Your task to perform on an android device: allow notifications from all sites in the chrome app Image 0: 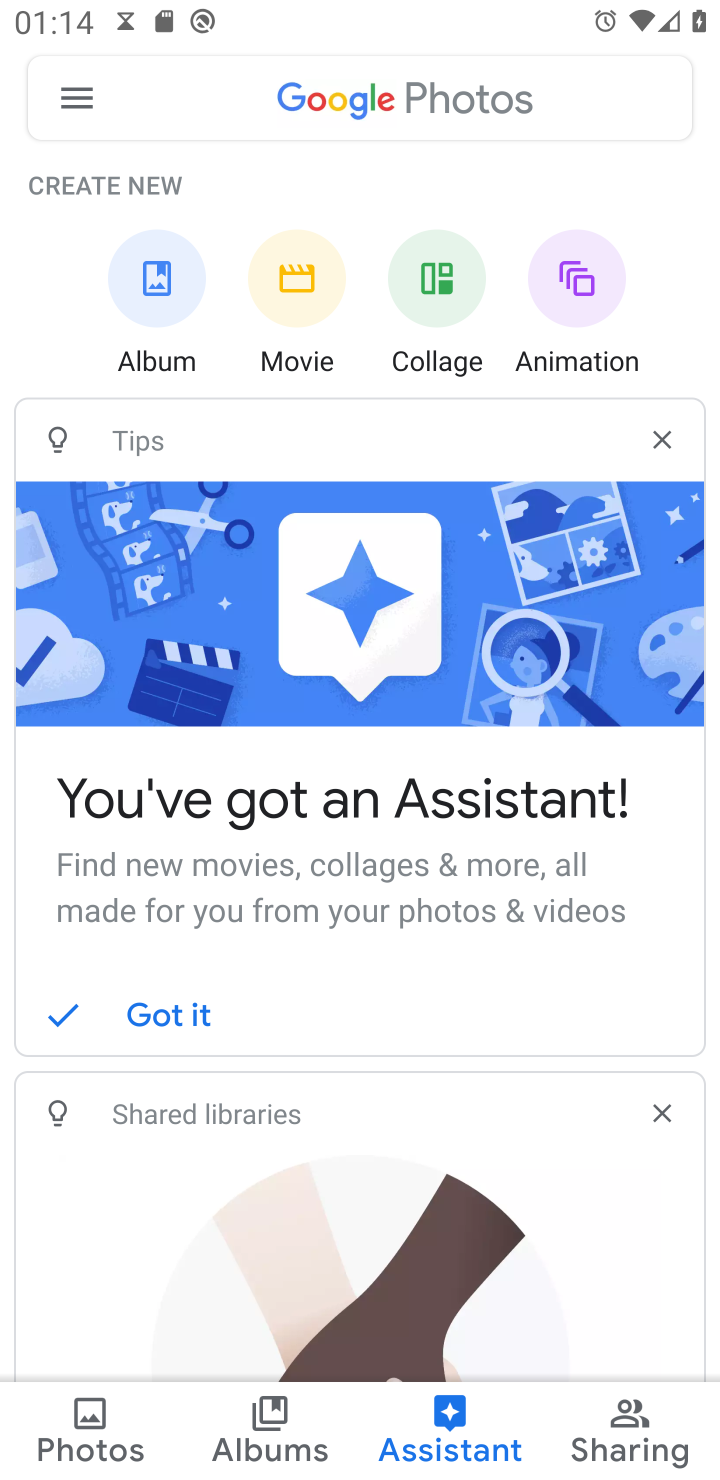
Step 0: drag from (398, 1274) to (384, 586)
Your task to perform on an android device: allow notifications from all sites in the chrome app Image 1: 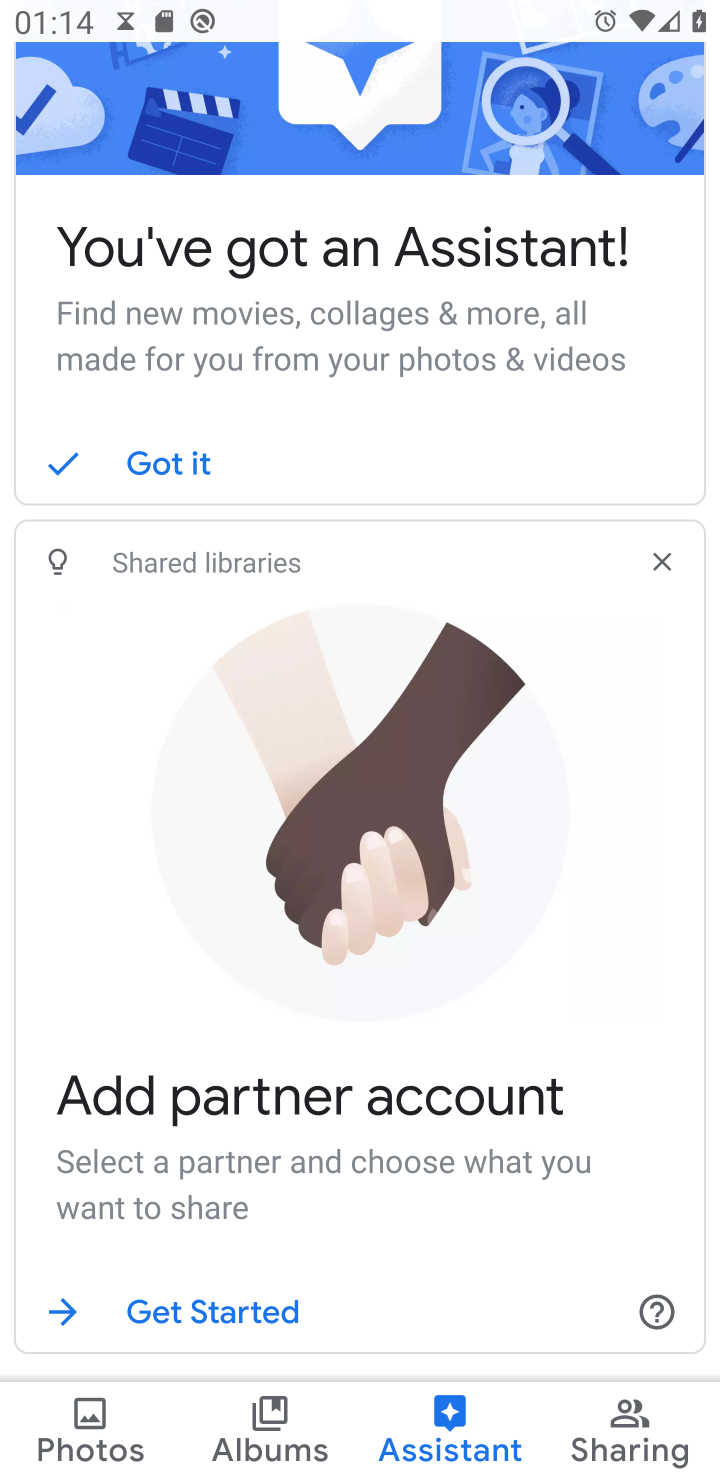
Step 1: press home button
Your task to perform on an android device: allow notifications from all sites in the chrome app Image 2: 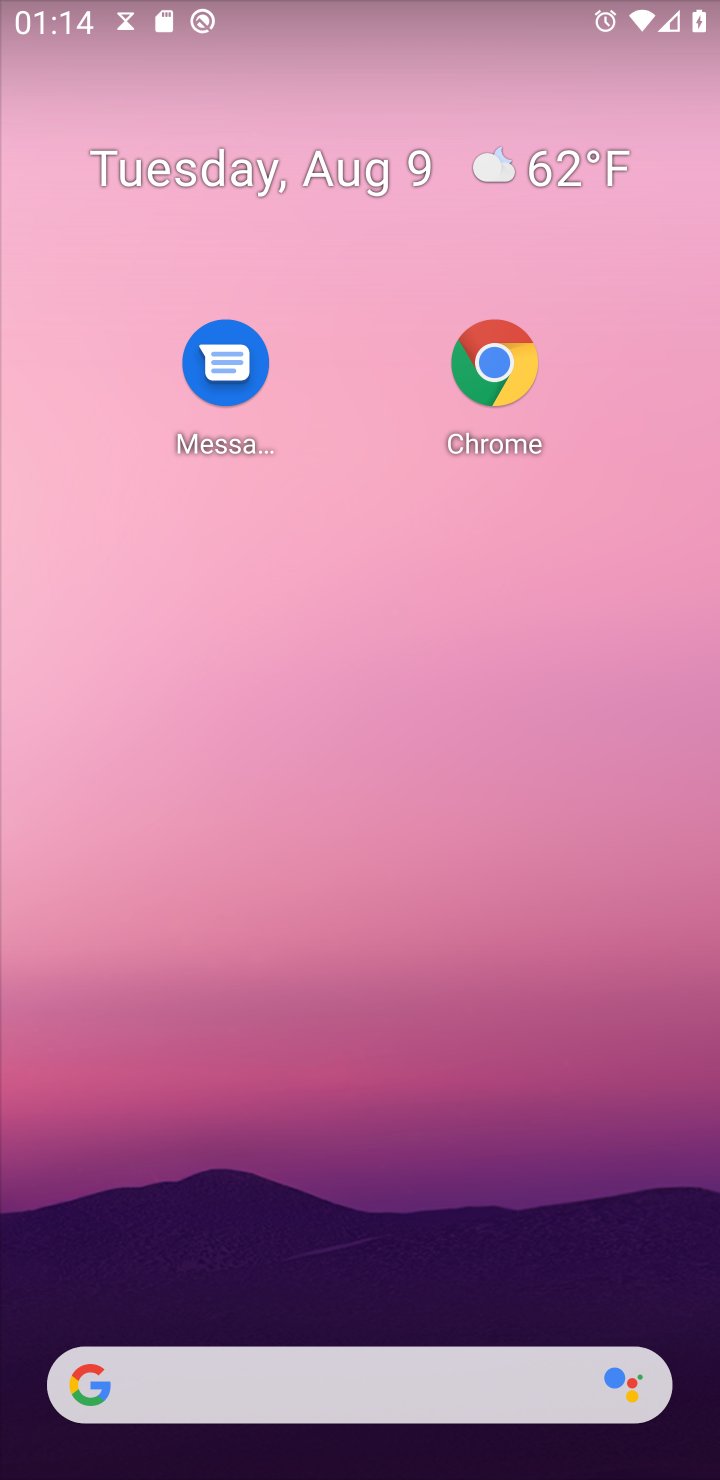
Step 2: drag from (188, 1282) to (372, 346)
Your task to perform on an android device: allow notifications from all sites in the chrome app Image 3: 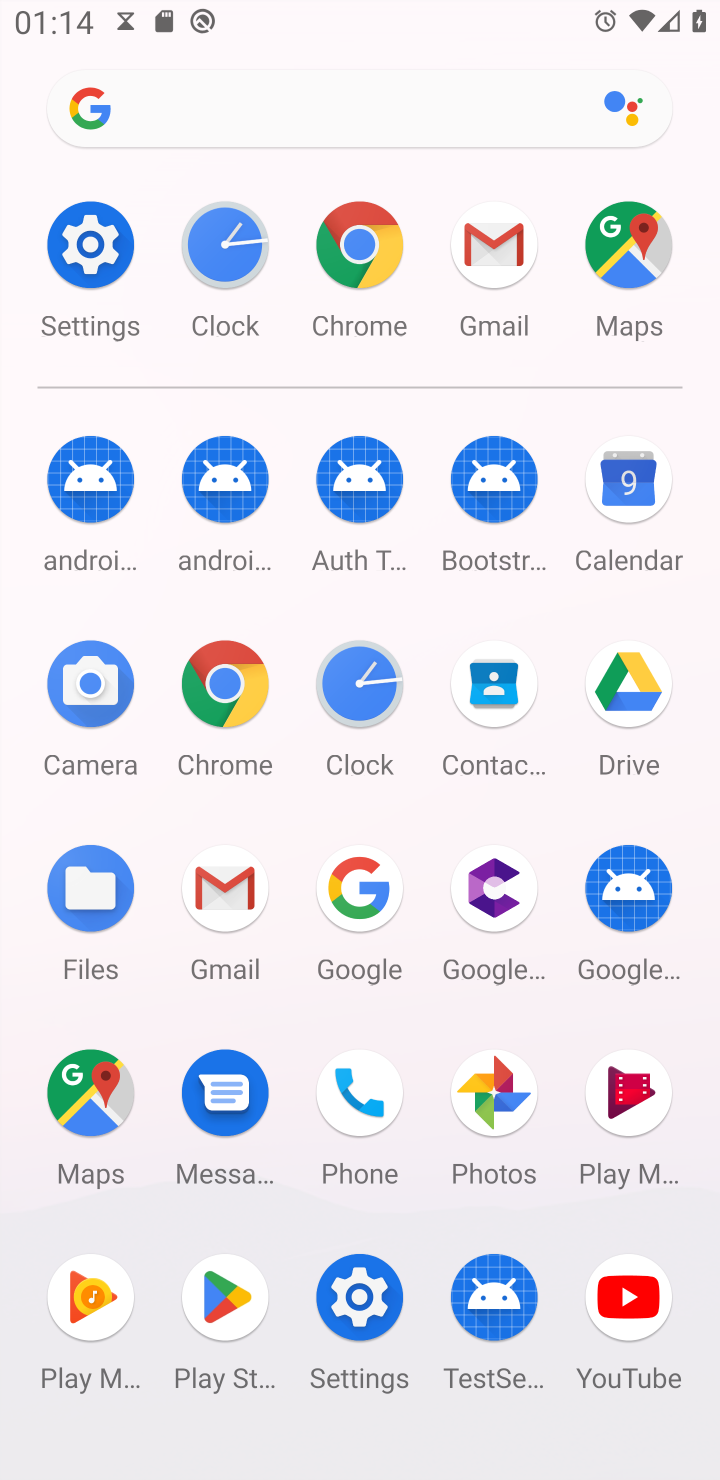
Step 3: click (238, 679)
Your task to perform on an android device: allow notifications from all sites in the chrome app Image 4: 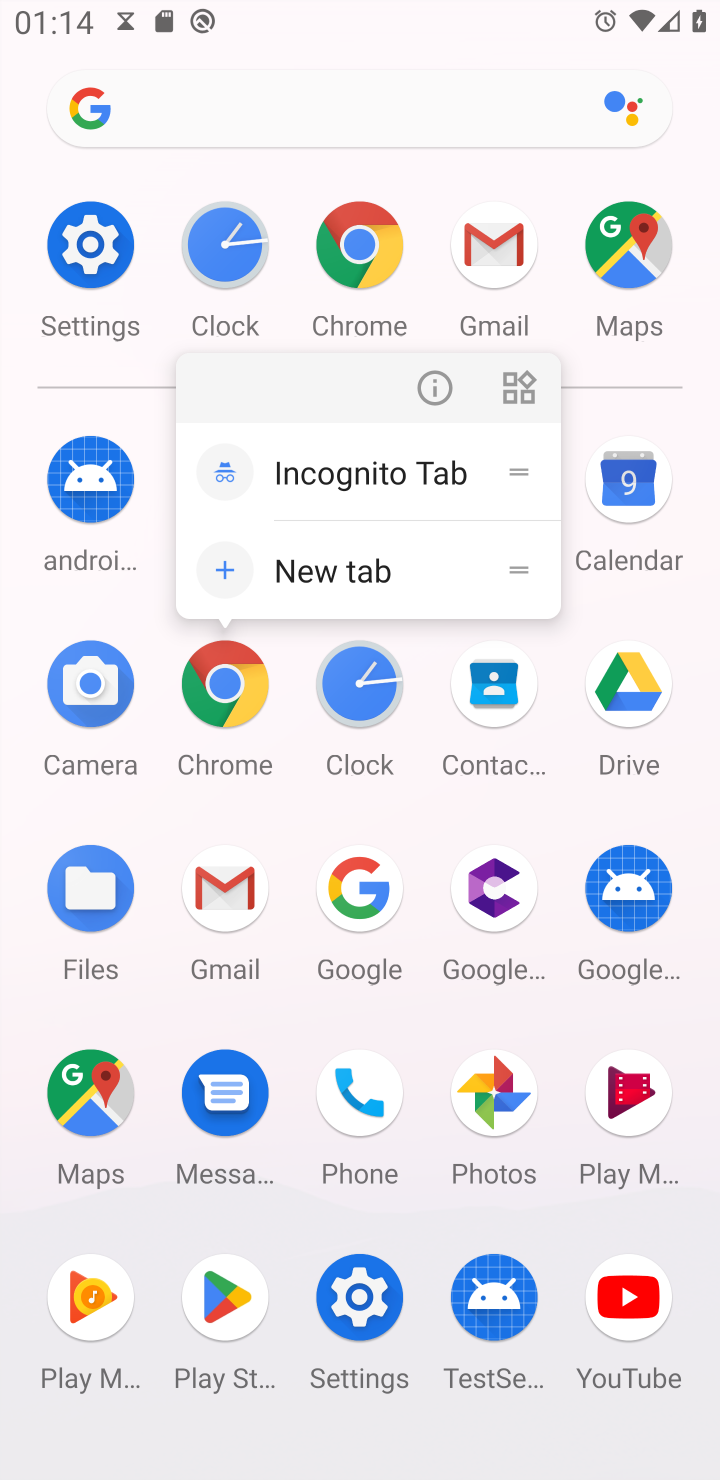
Step 4: click (228, 633)
Your task to perform on an android device: allow notifications from all sites in the chrome app Image 5: 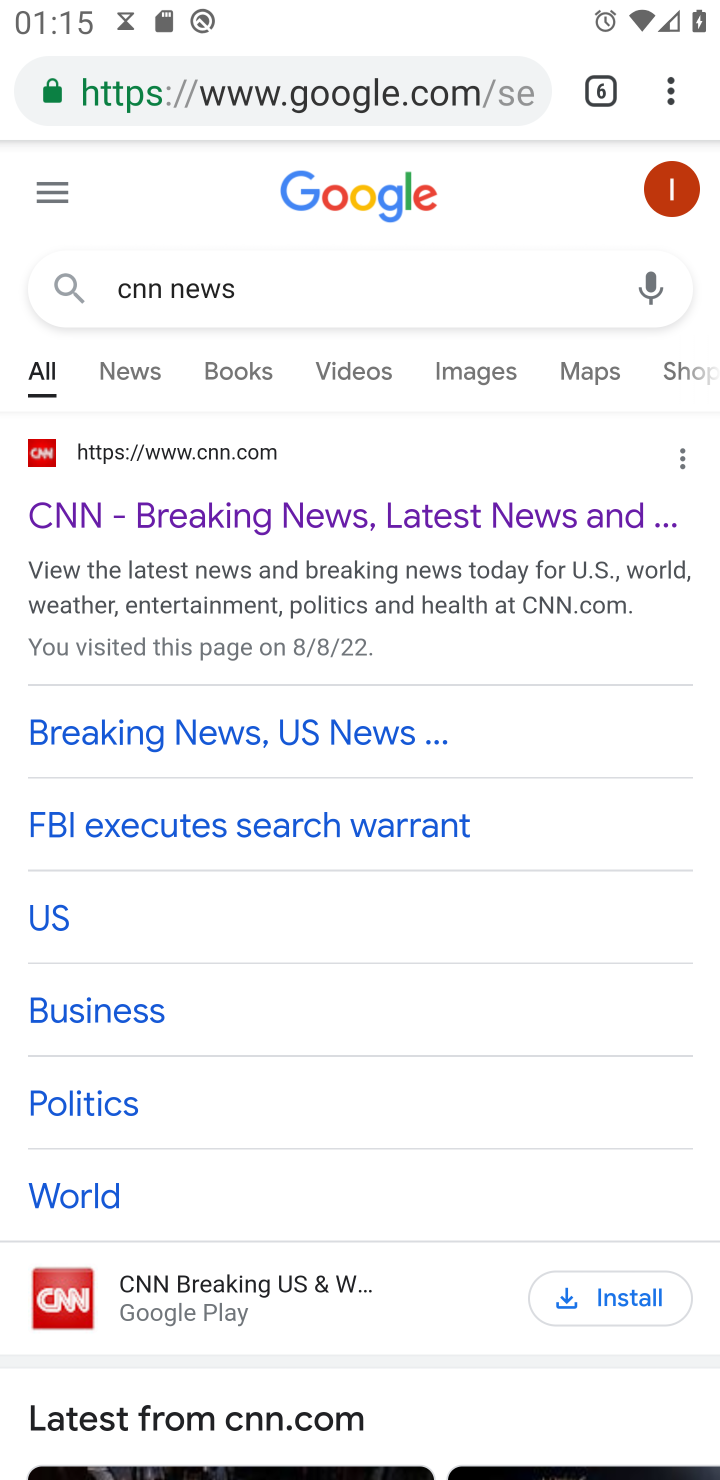
Step 5: click (674, 100)
Your task to perform on an android device: allow notifications from all sites in the chrome app Image 6: 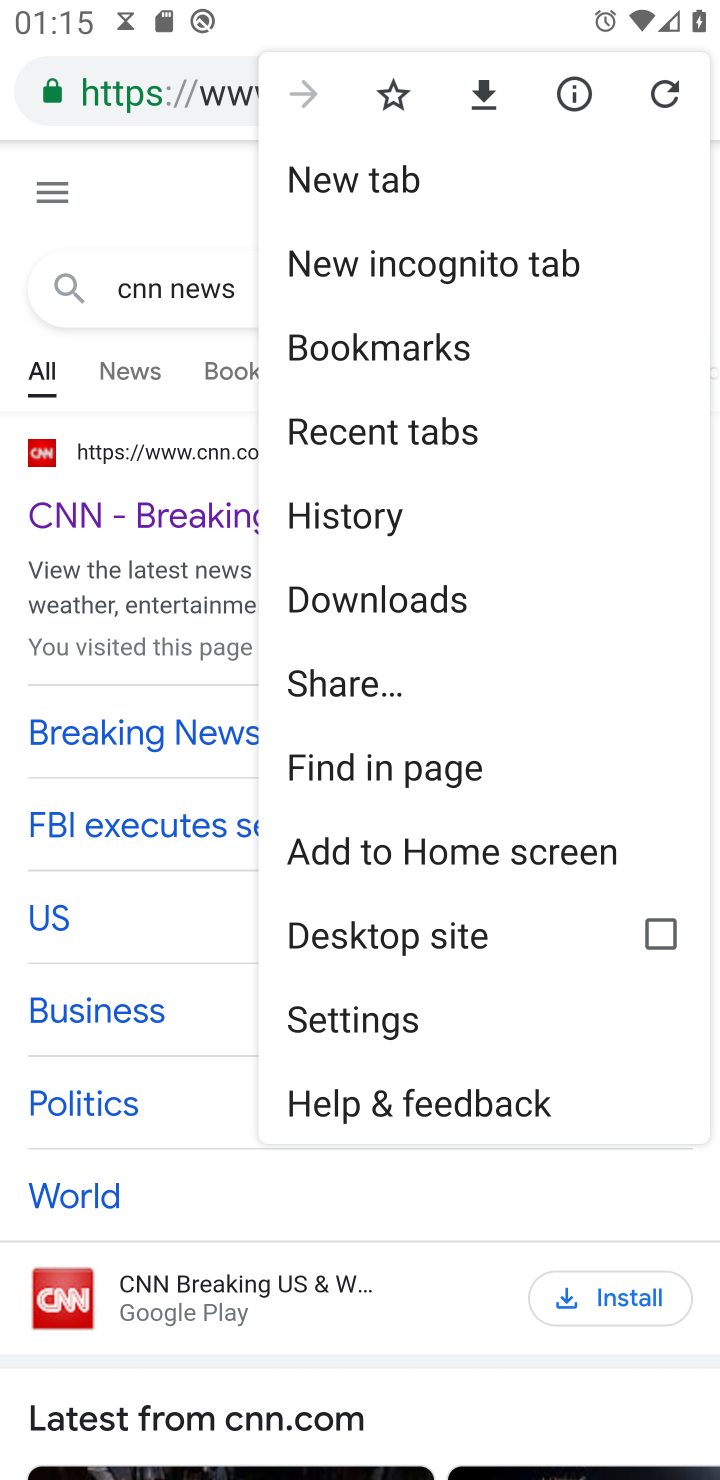
Step 6: click (377, 999)
Your task to perform on an android device: allow notifications from all sites in the chrome app Image 7: 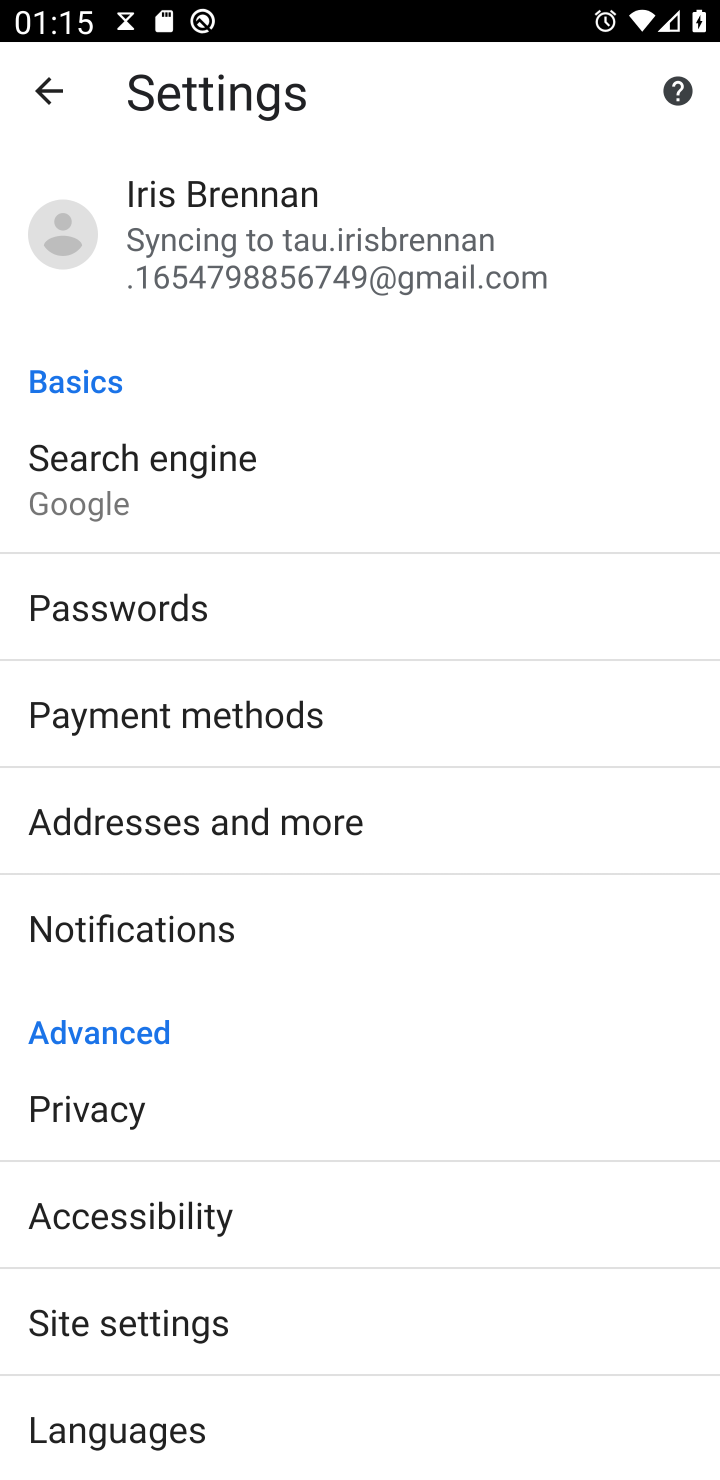
Step 7: drag from (206, 1251) to (358, 512)
Your task to perform on an android device: allow notifications from all sites in the chrome app Image 8: 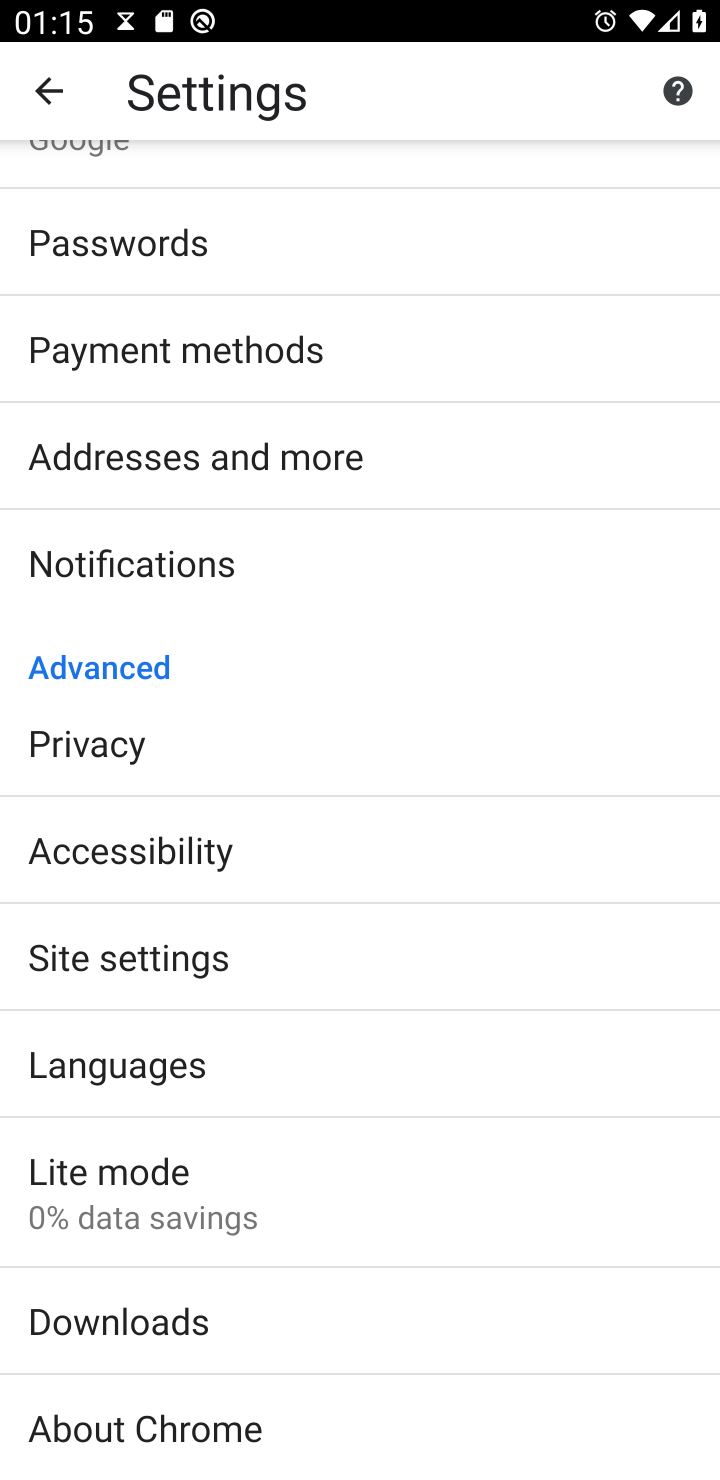
Step 8: click (227, 930)
Your task to perform on an android device: allow notifications from all sites in the chrome app Image 9: 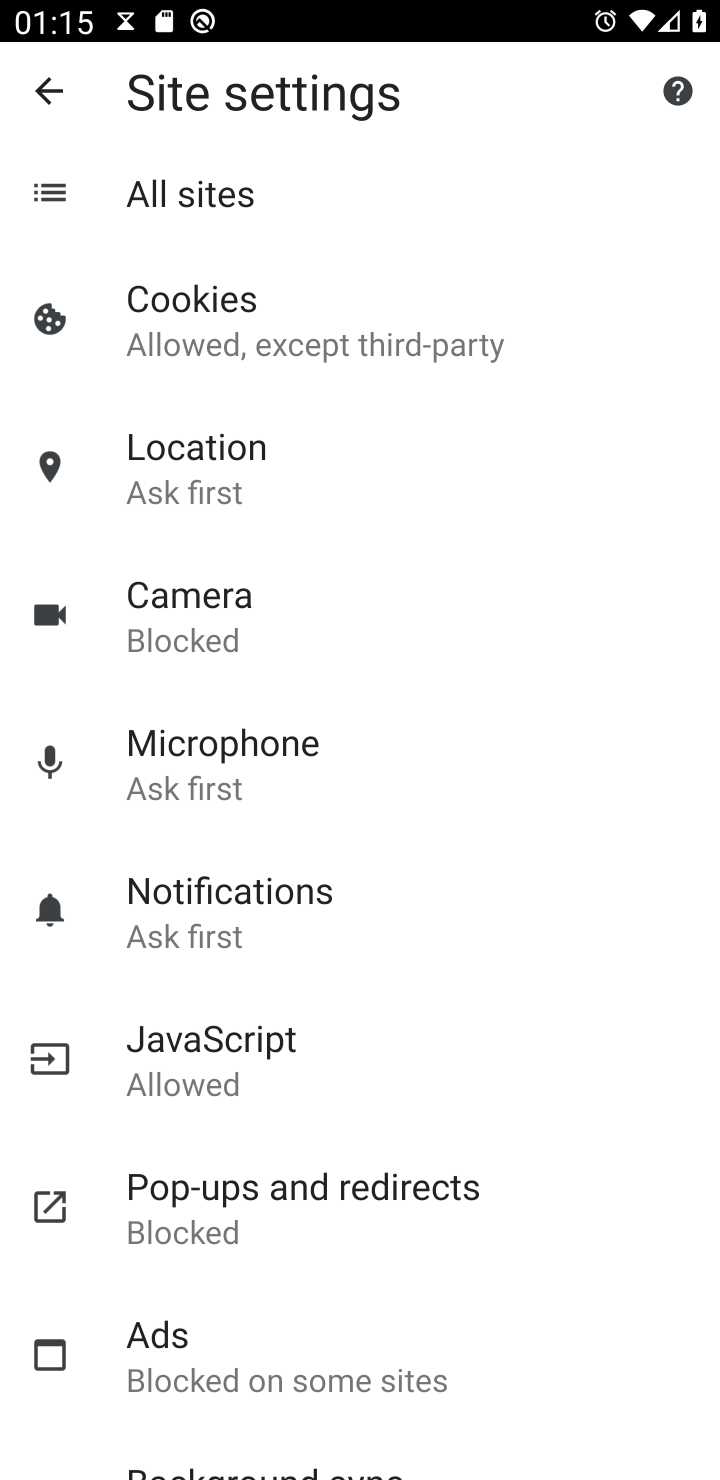
Step 9: click (204, 336)
Your task to perform on an android device: allow notifications from all sites in the chrome app Image 10: 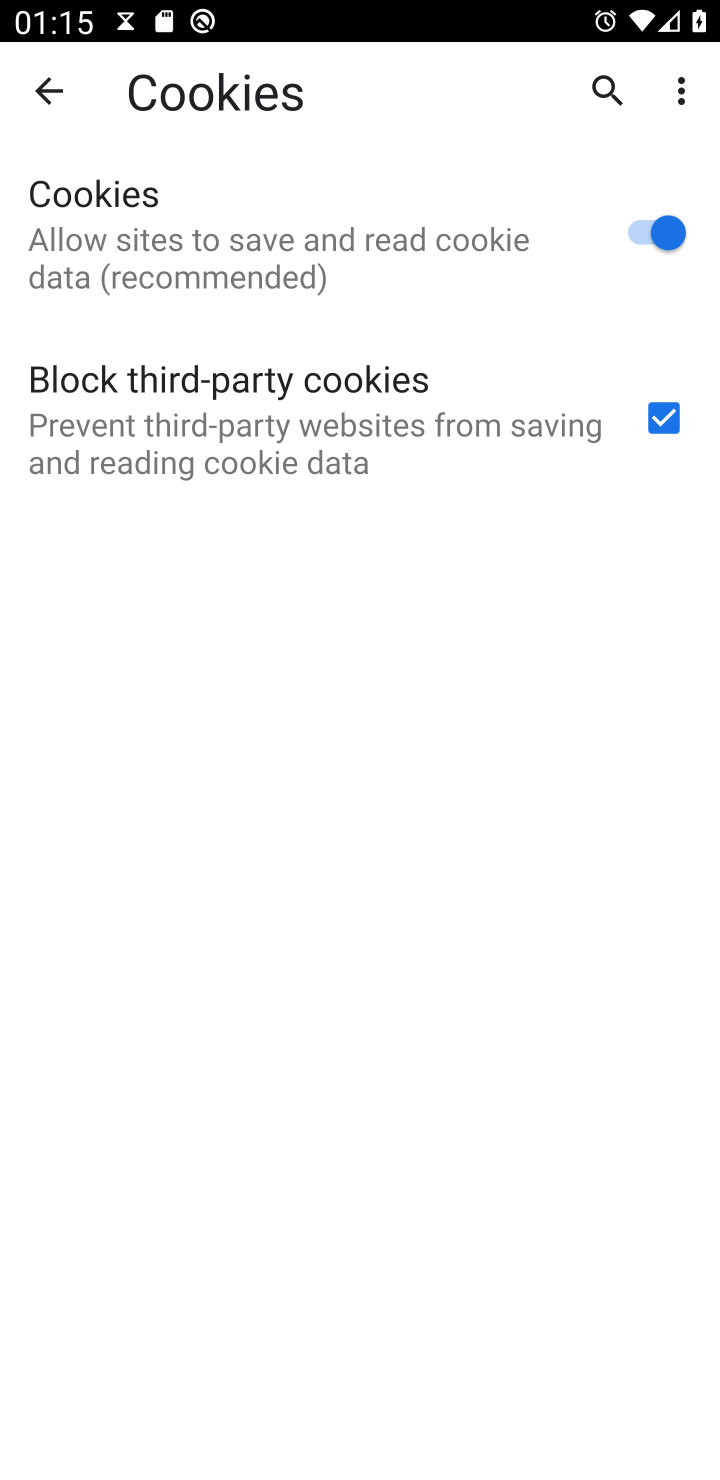
Step 10: click (53, 86)
Your task to perform on an android device: allow notifications from all sites in the chrome app Image 11: 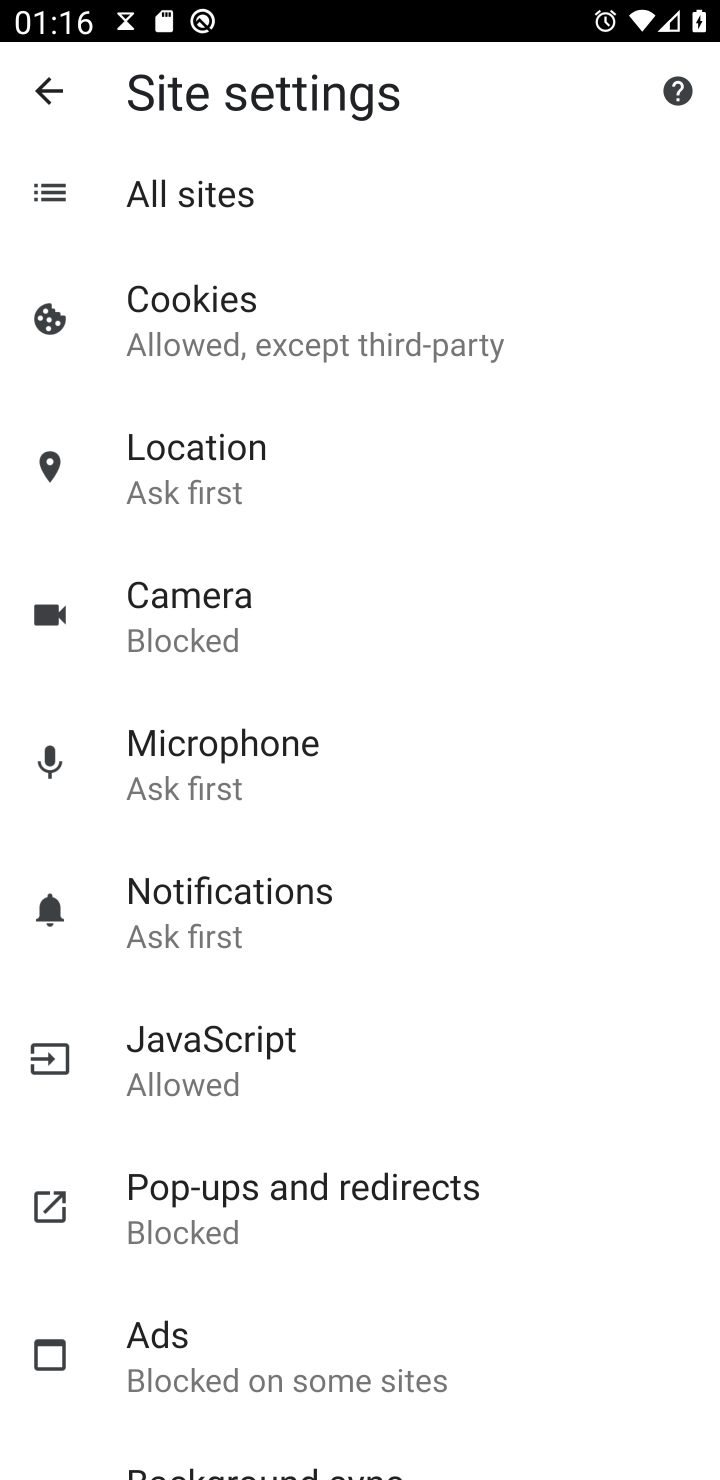
Step 11: click (225, 482)
Your task to perform on an android device: allow notifications from all sites in the chrome app Image 12: 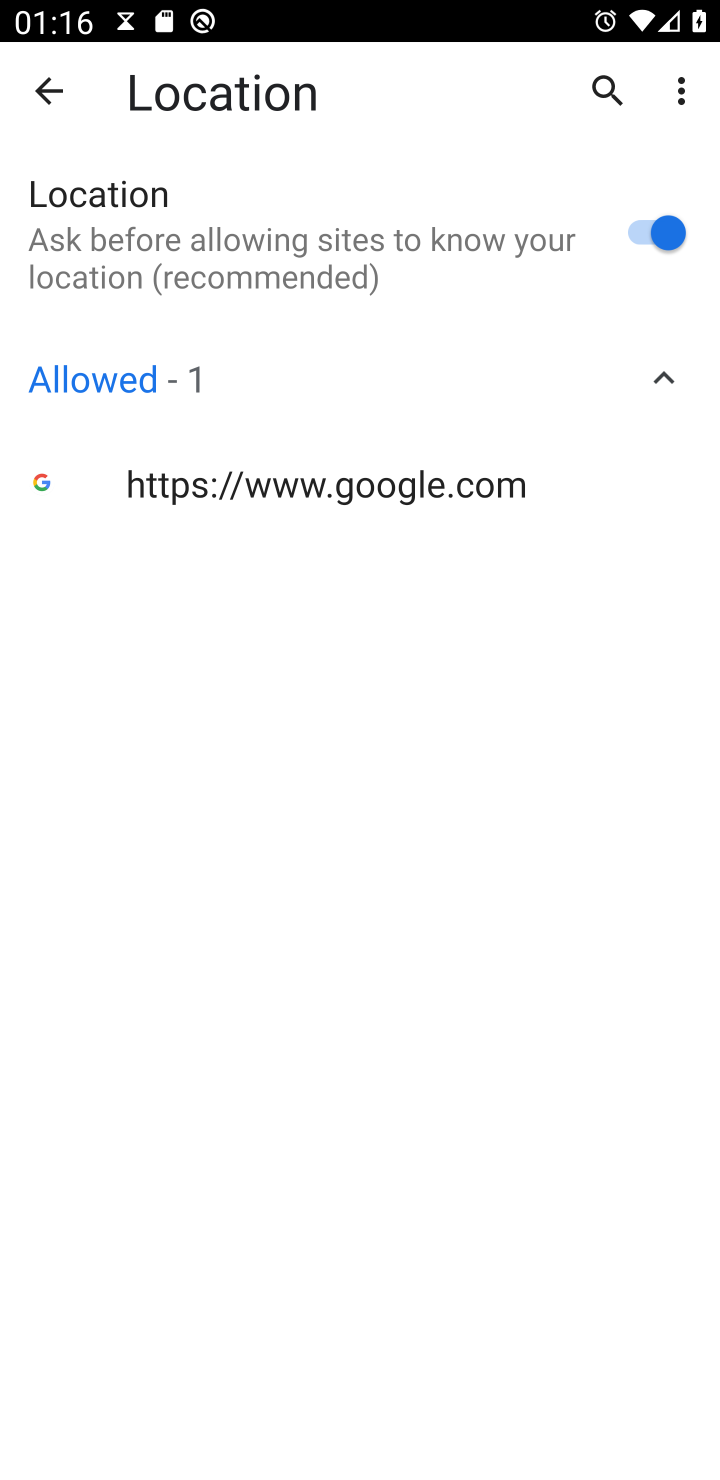
Step 12: click (31, 84)
Your task to perform on an android device: allow notifications from all sites in the chrome app Image 13: 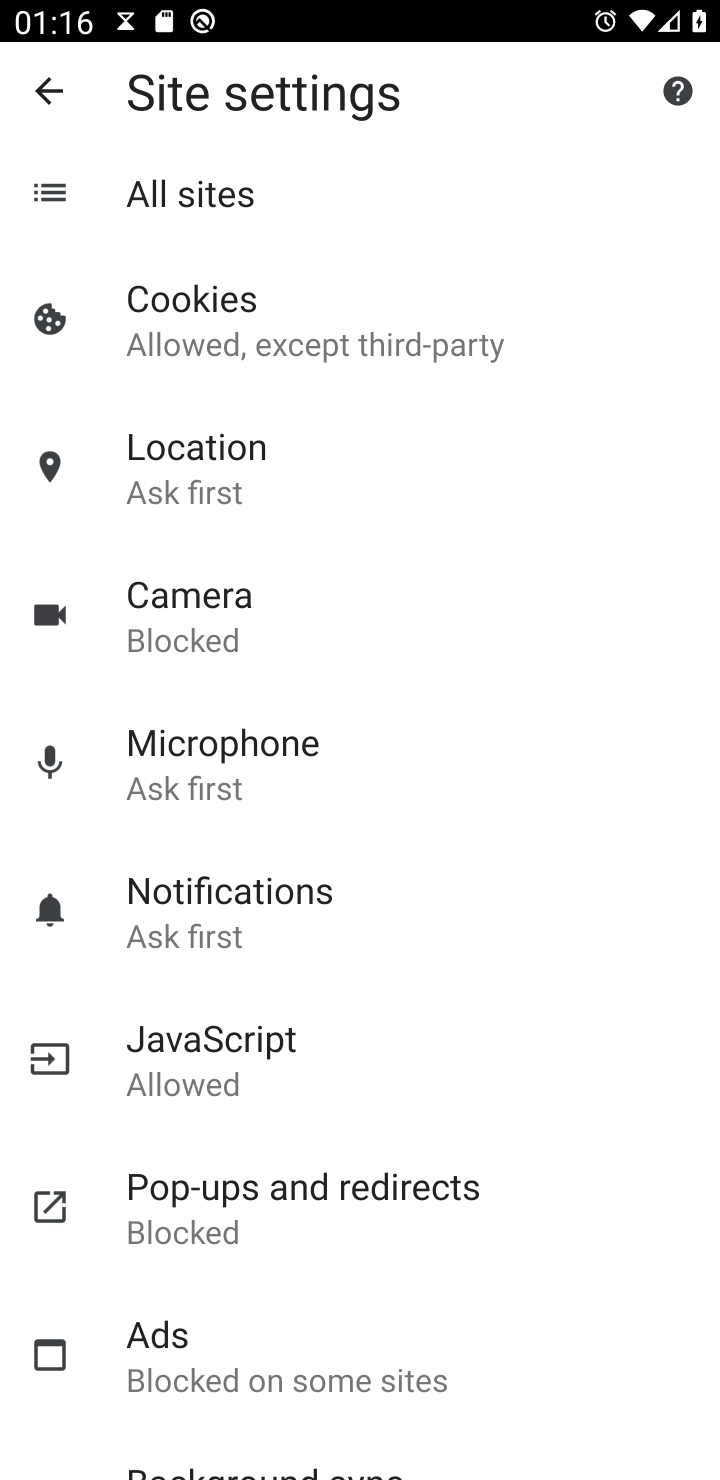
Step 13: click (258, 730)
Your task to perform on an android device: allow notifications from all sites in the chrome app Image 14: 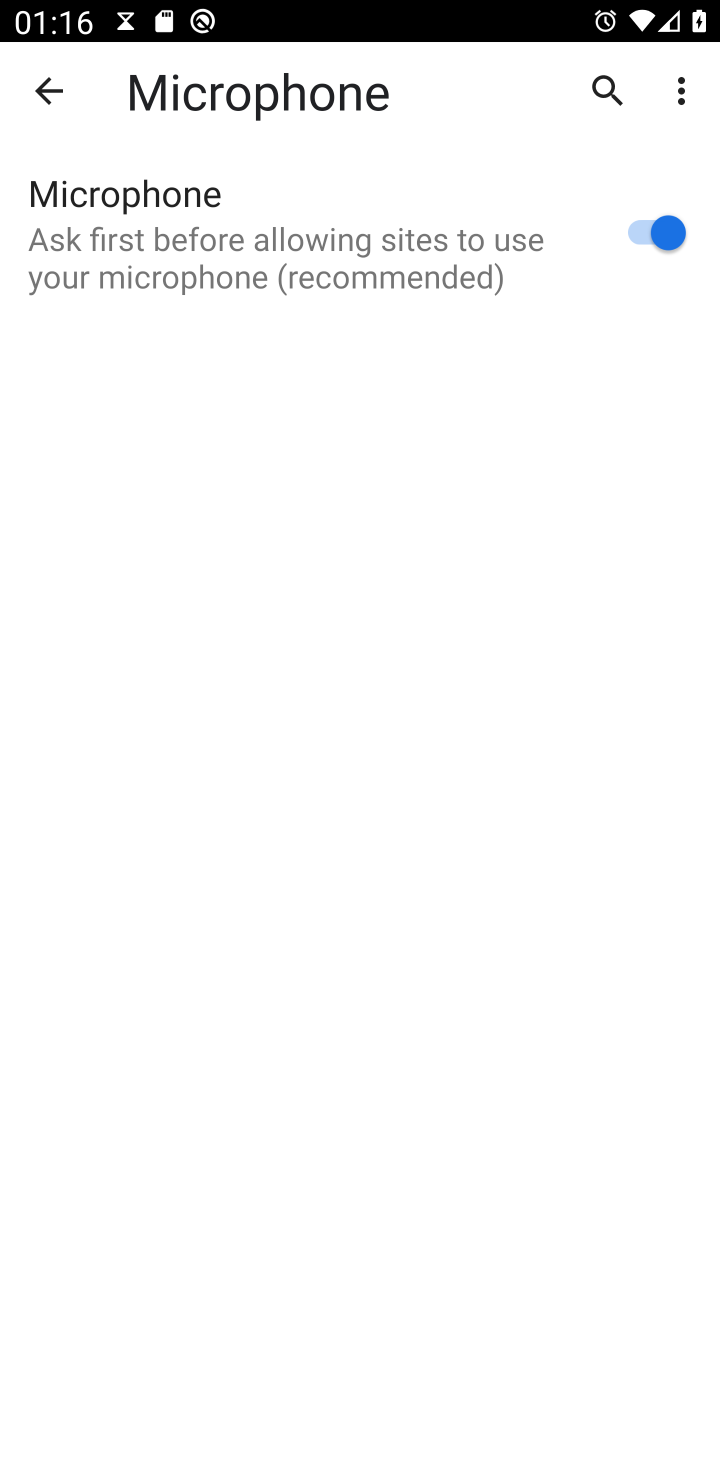
Step 14: click (27, 99)
Your task to perform on an android device: allow notifications from all sites in the chrome app Image 15: 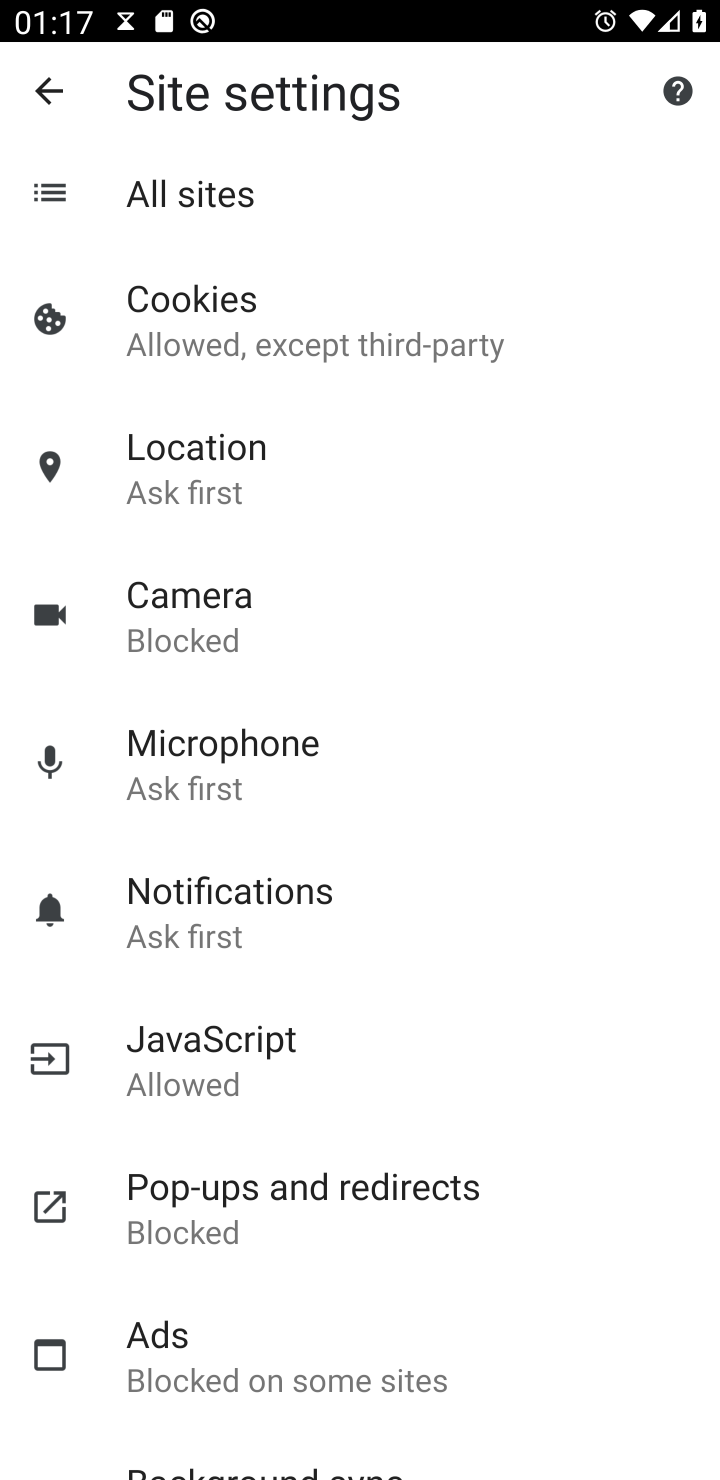
Step 15: task complete